Your task to perform on an android device: Show the shopping cart on newegg.com. Search for "razer nari" on newegg.com, select the first entry, and add it to the cart. Image 0: 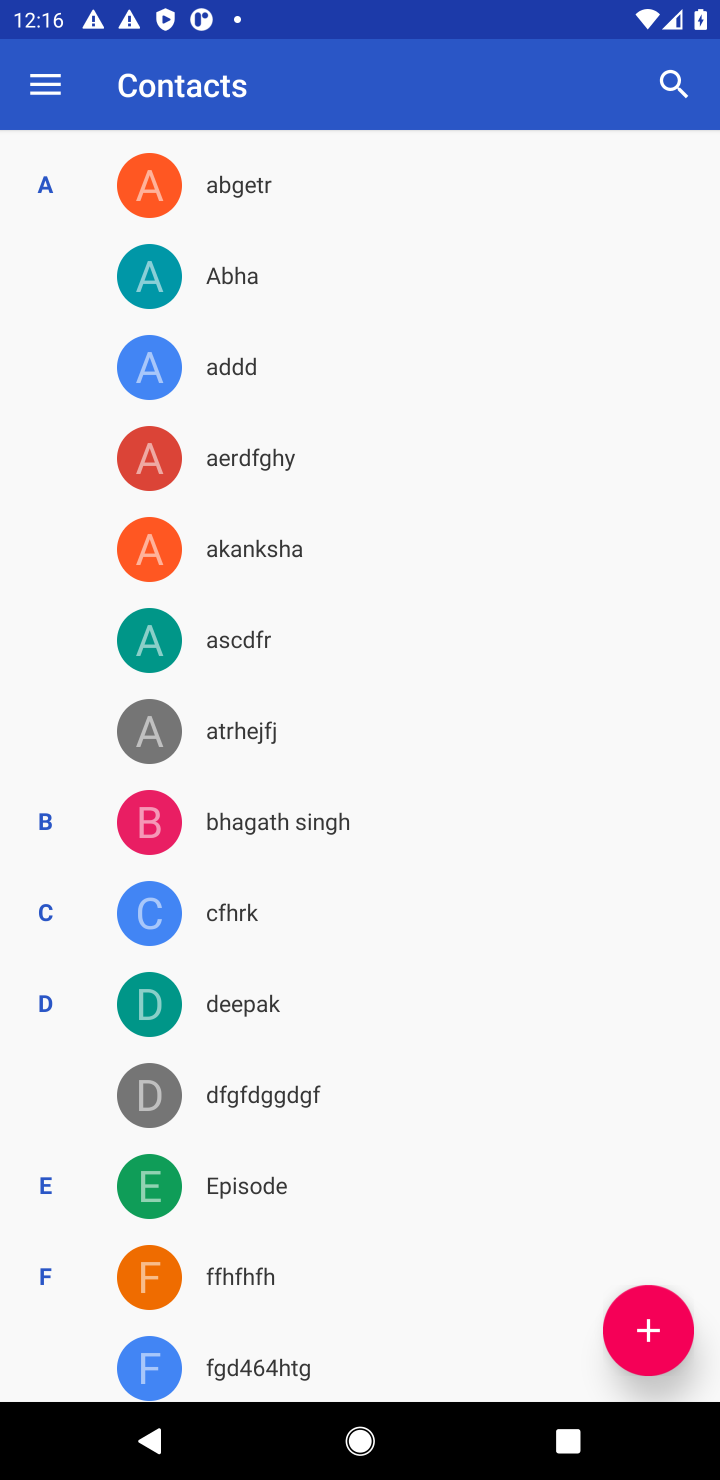
Step 0: press home button
Your task to perform on an android device: Show the shopping cart on newegg.com. Search for "razer nari" on newegg.com, select the first entry, and add it to the cart. Image 1: 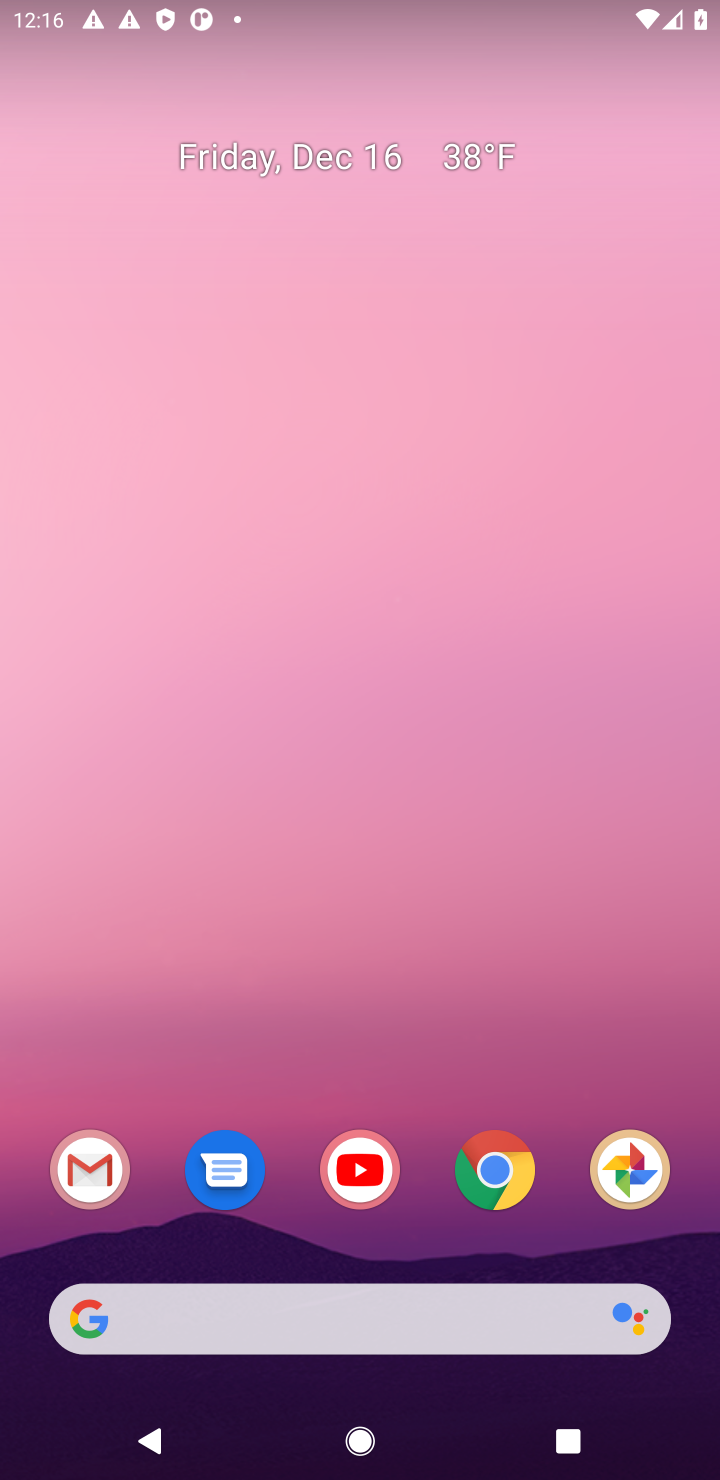
Step 1: click (500, 1188)
Your task to perform on an android device: Show the shopping cart on newegg.com. Search for "razer nari" on newegg.com, select the first entry, and add it to the cart. Image 2: 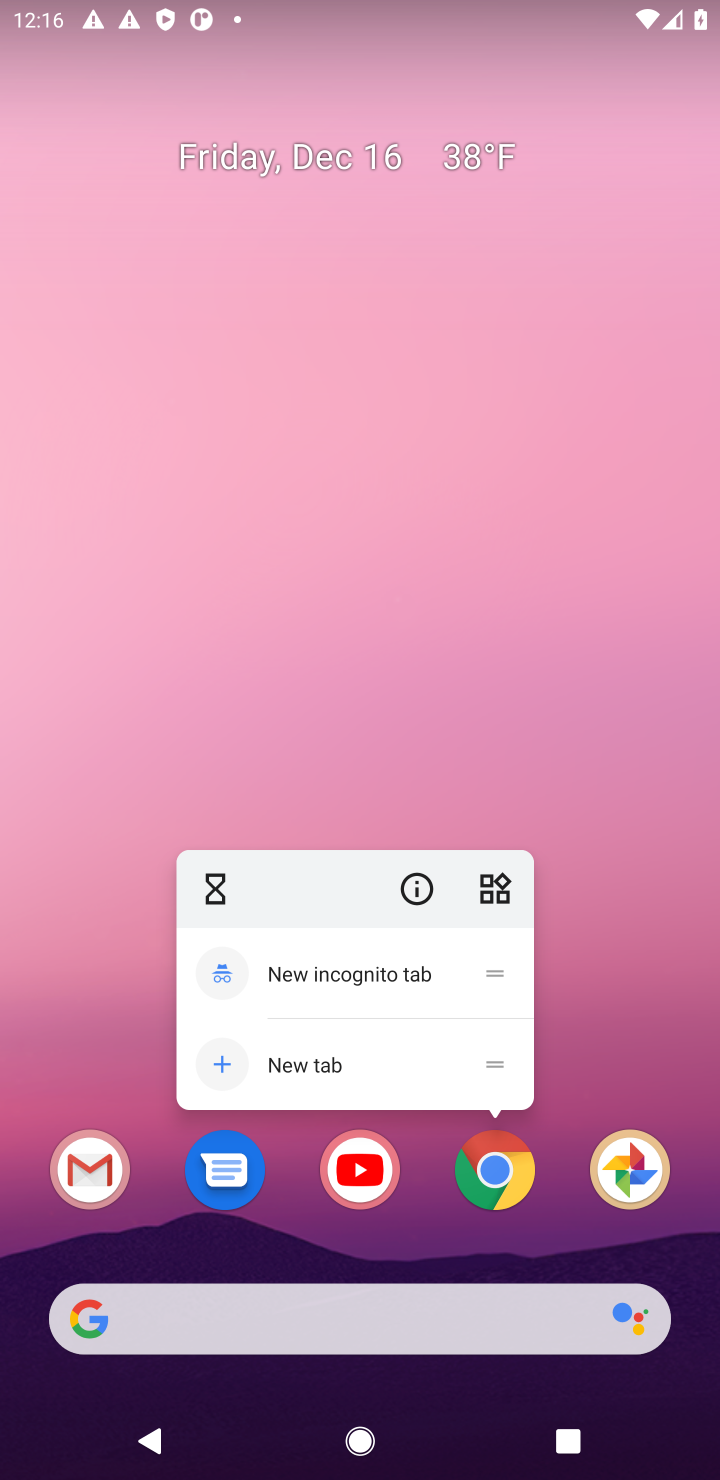
Step 2: click (495, 1175)
Your task to perform on an android device: Show the shopping cart on newegg.com. Search for "razer nari" on newegg.com, select the first entry, and add it to the cart. Image 3: 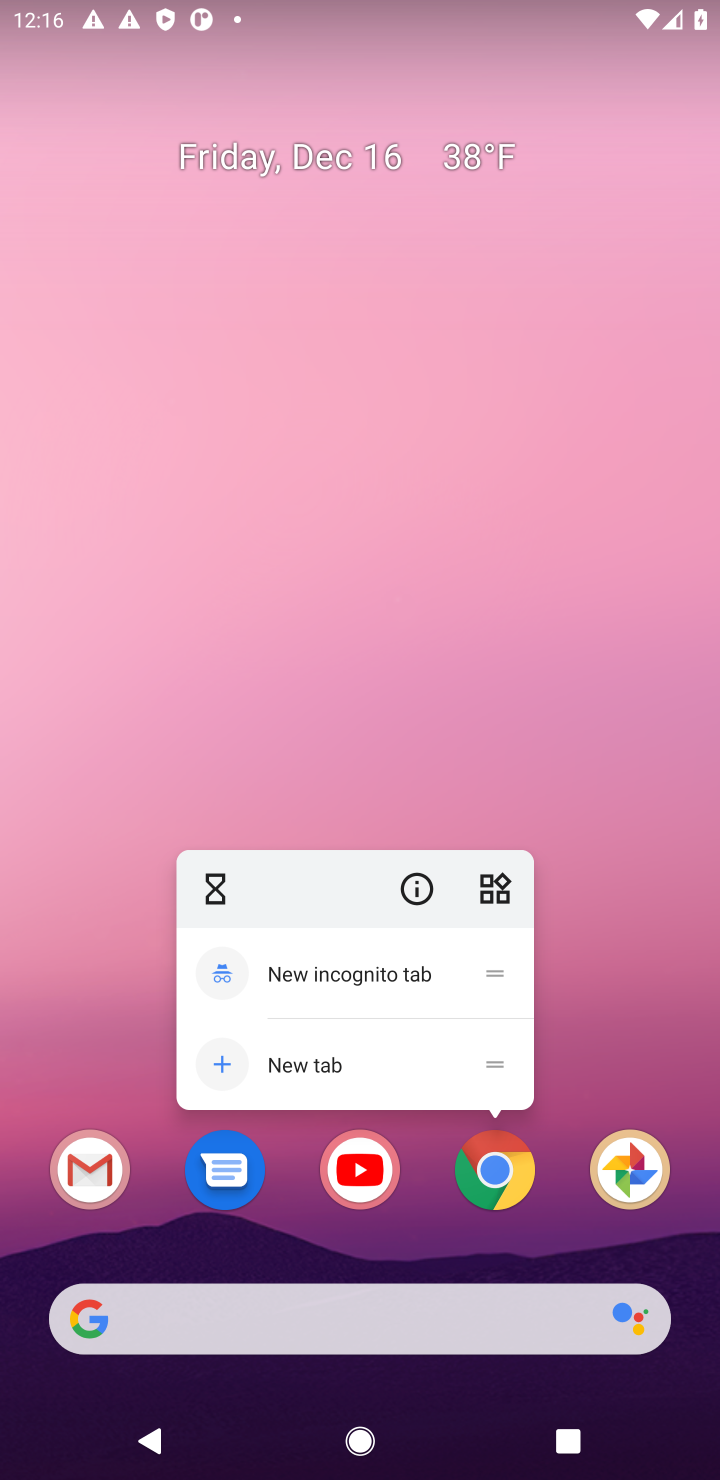
Step 3: click (495, 1175)
Your task to perform on an android device: Show the shopping cart on newegg.com. Search for "razer nari" on newegg.com, select the first entry, and add it to the cart. Image 4: 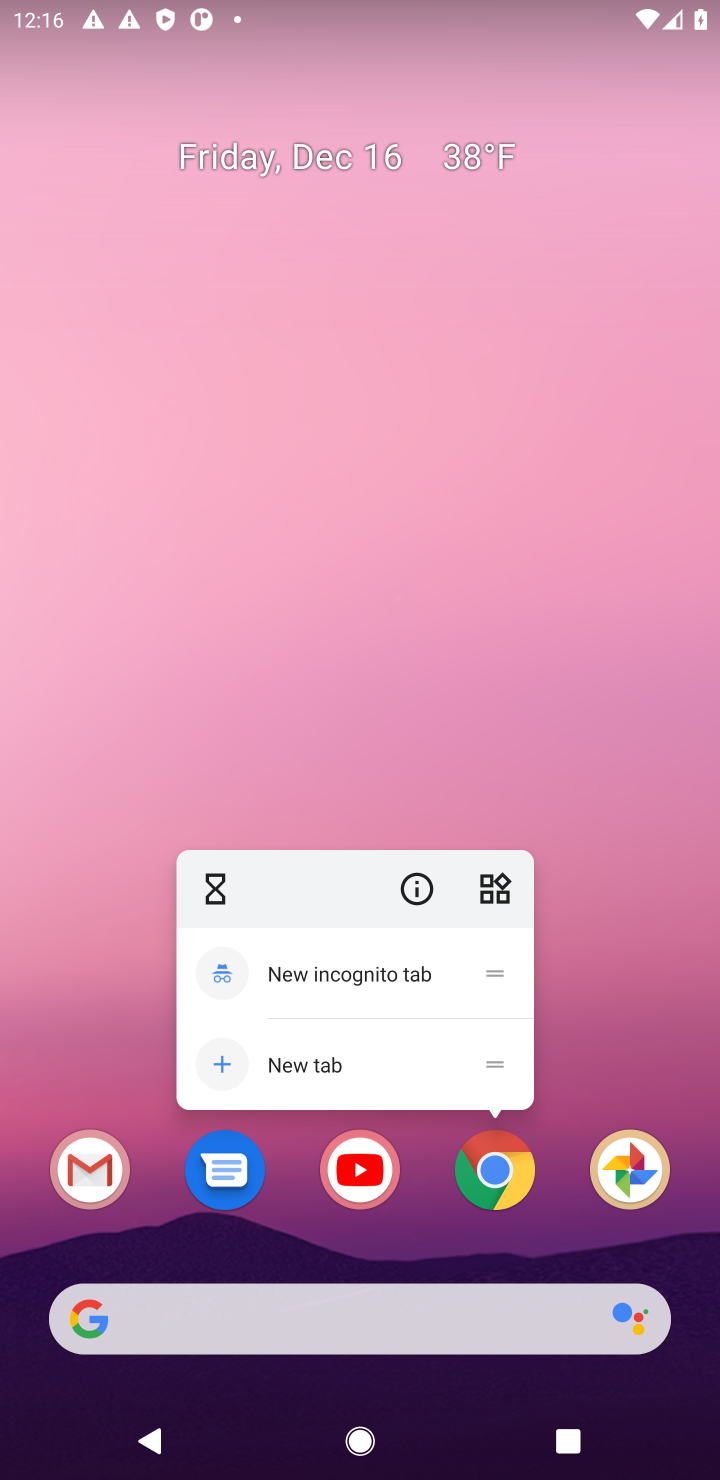
Step 4: click (510, 1169)
Your task to perform on an android device: Show the shopping cart on newegg.com. Search for "razer nari" on newegg.com, select the first entry, and add it to the cart. Image 5: 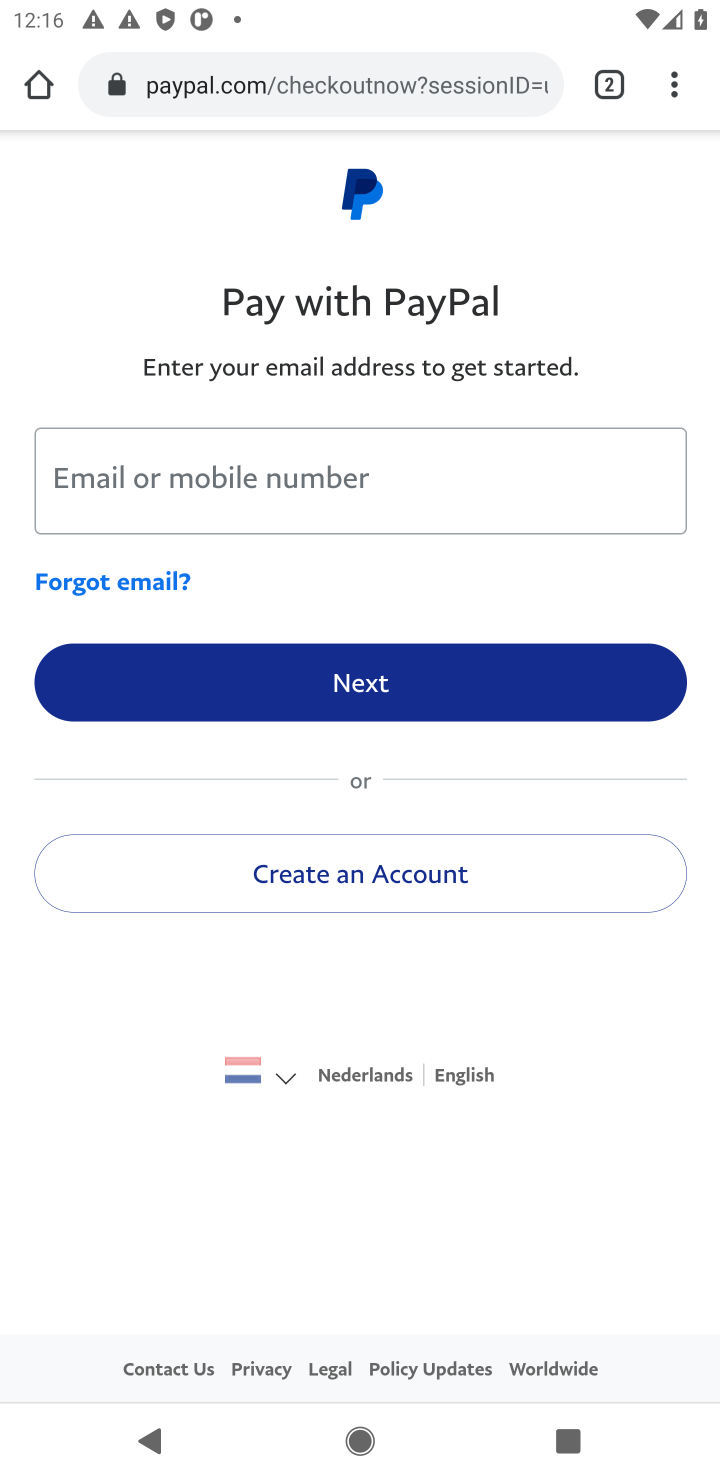
Step 5: press home button
Your task to perform on an android device: Show the shopping cart on newegg.com. Search for "razer nari" on newegg.com, select the first entry, and add it to the cart. Image 6: 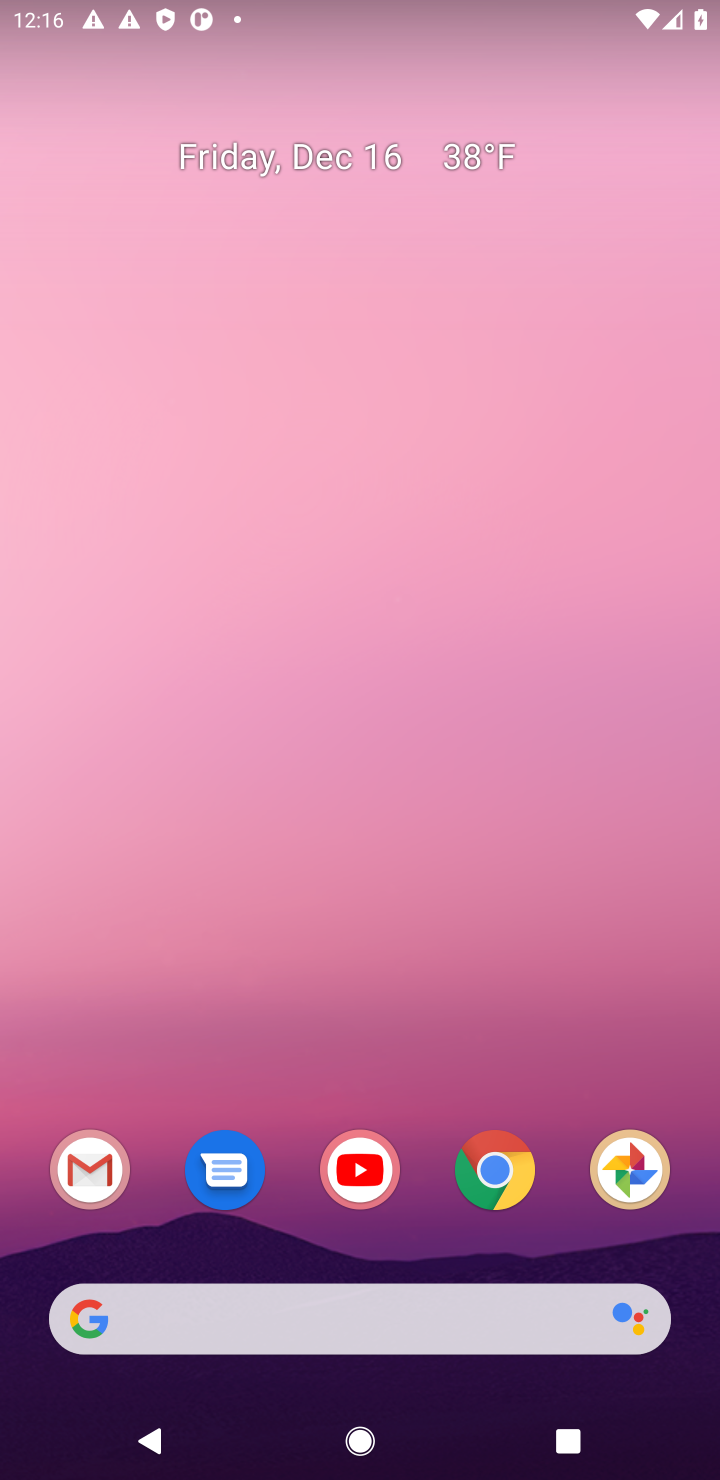
Step 6: click (482, 1165)
Your task to perform on an android device: Show the shopping cart on newegg.com. Search for "razer nari" on newegg.com, select the first entry, and add it to the cart. Image 7: 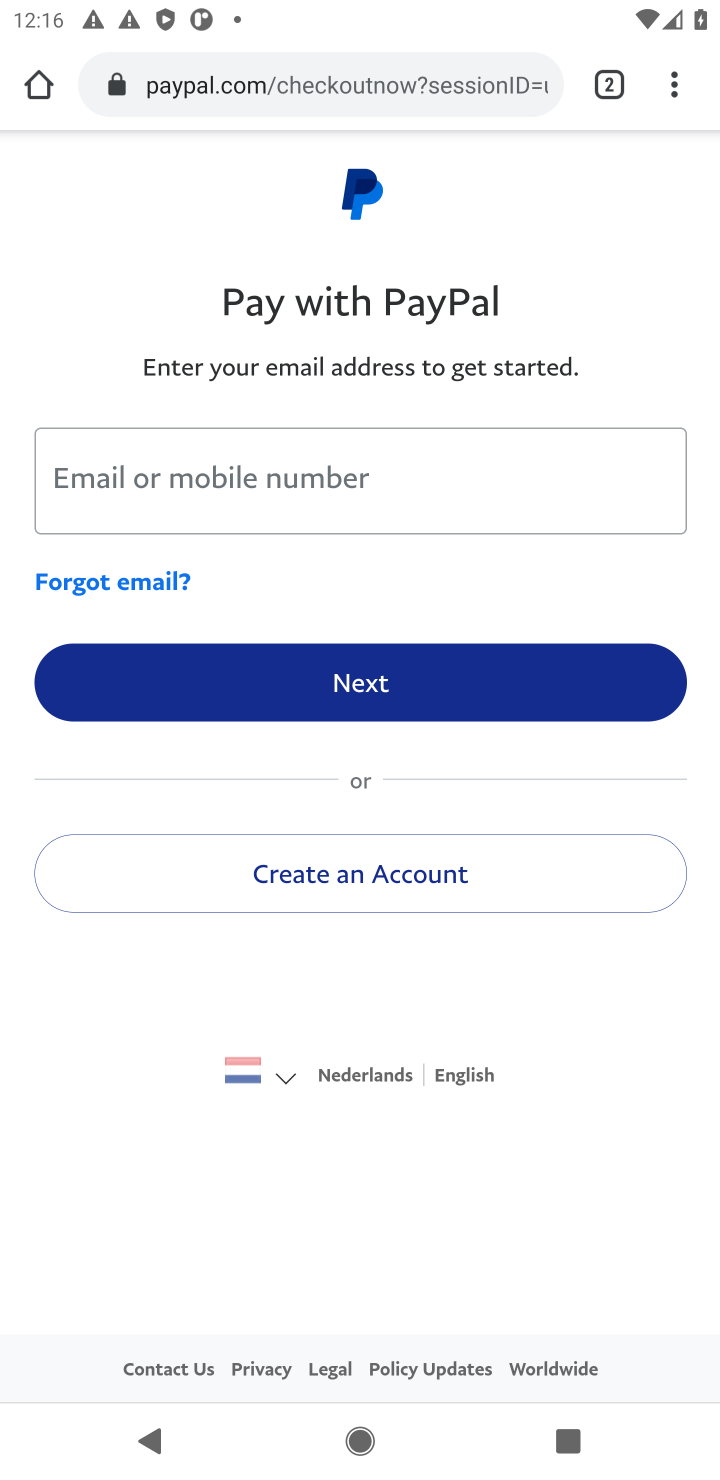
Step 7: click (253, 86)
Your task to perform on an android device: Show the shopping cart on newegg.com. Search for "razer nari" on newegg.com, select the first entry, and add it to the cart. Image 8: 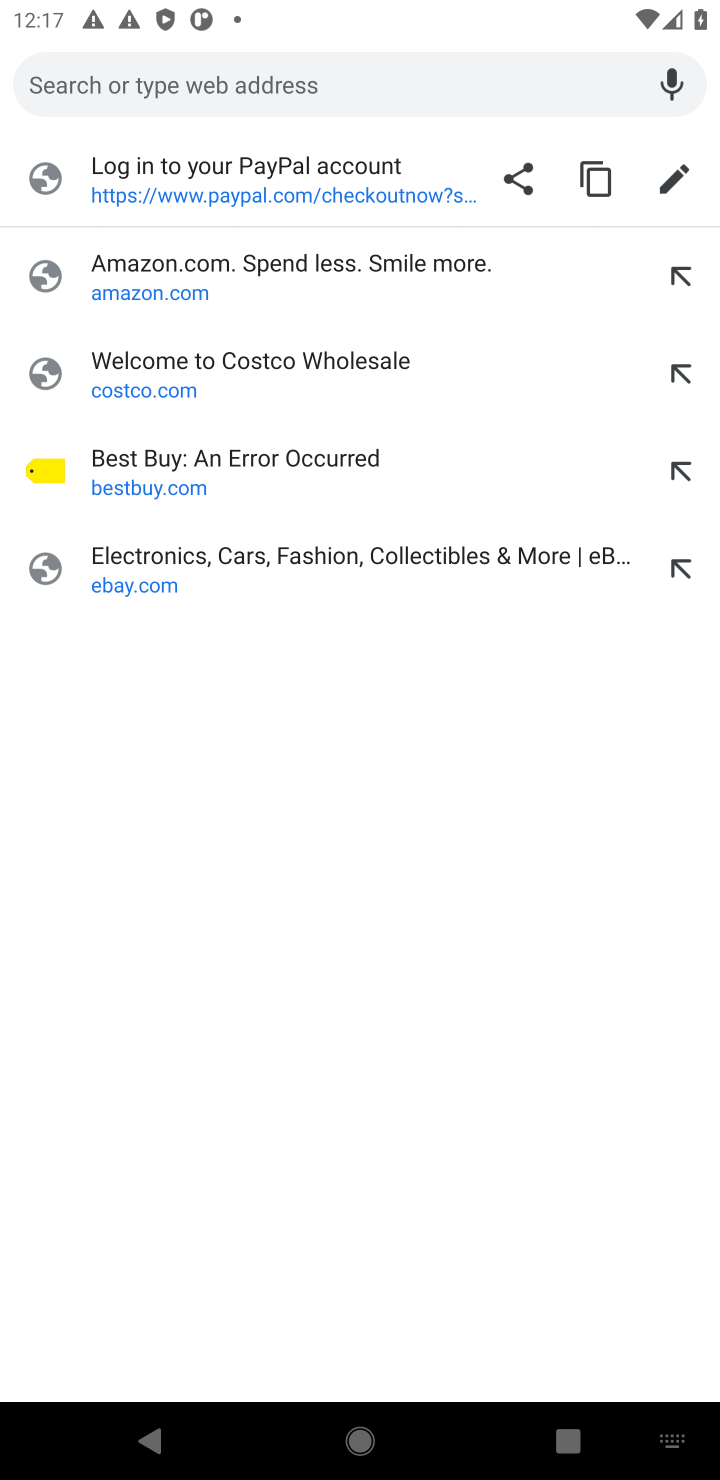
Step 8: type "newegg.com"
Your task to perform on an android device: Show the shopping cart on newegg.com. Search for "razer nari" on newegg.com, select the first entry, and add it to the cart. Image 9: 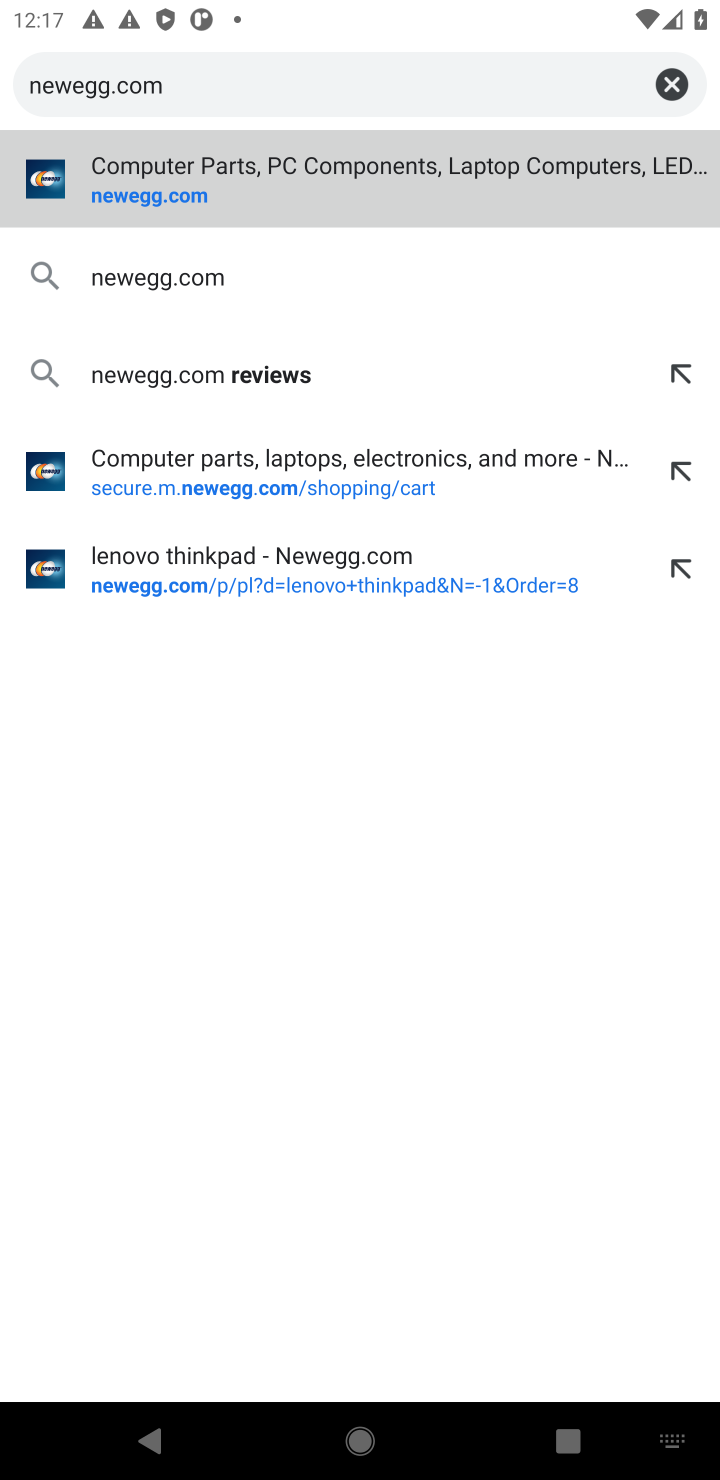
Step 9: click (142, 193)
Your task to perform on an android device: Show the shopping cart on newegg.com. Search for "razer nari" on newegg.com, select the first entry, and add it to the cart. Image 10: 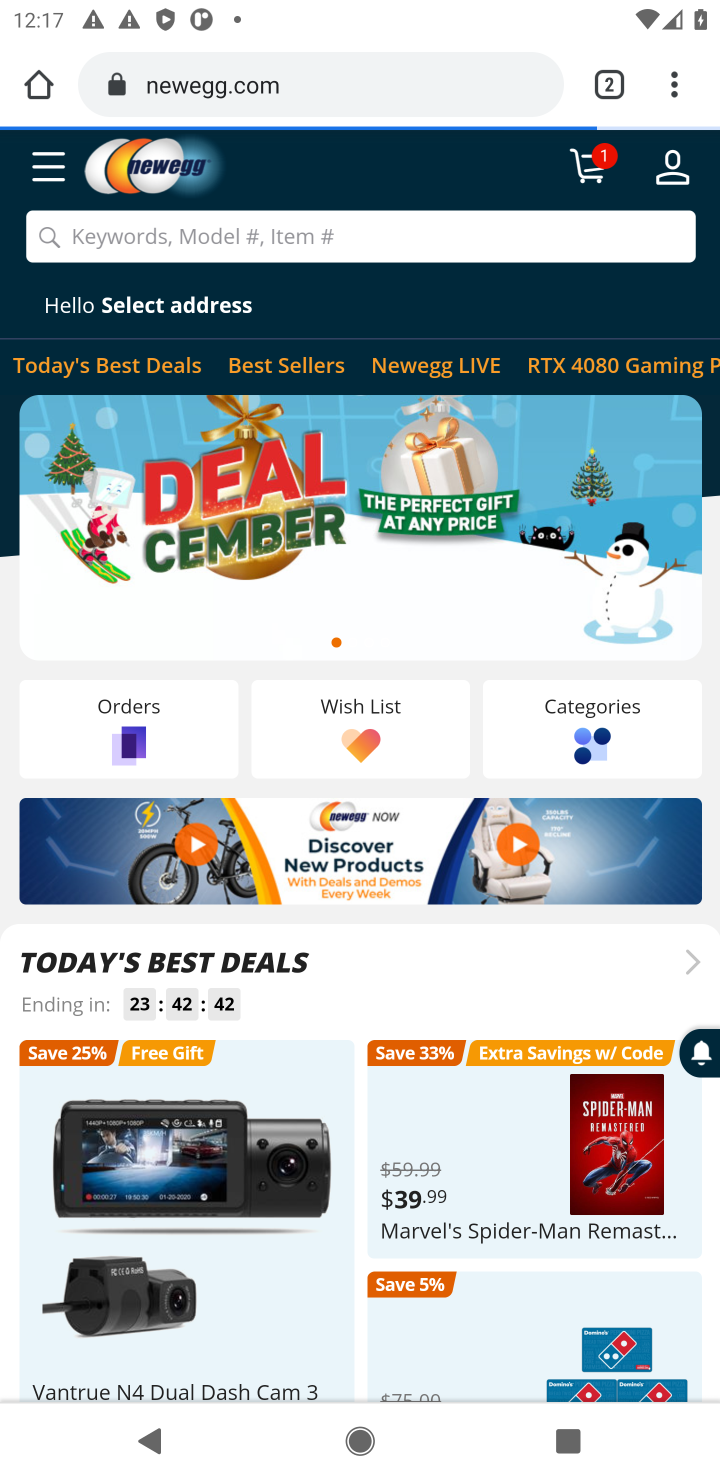
Step 10: click (595, 168)
Your task to perform on an android device: Show the shopping cart on newegg.com. Search for "razer nari" on newegg.com, select the first entry, and add it to the cart. Image 11: 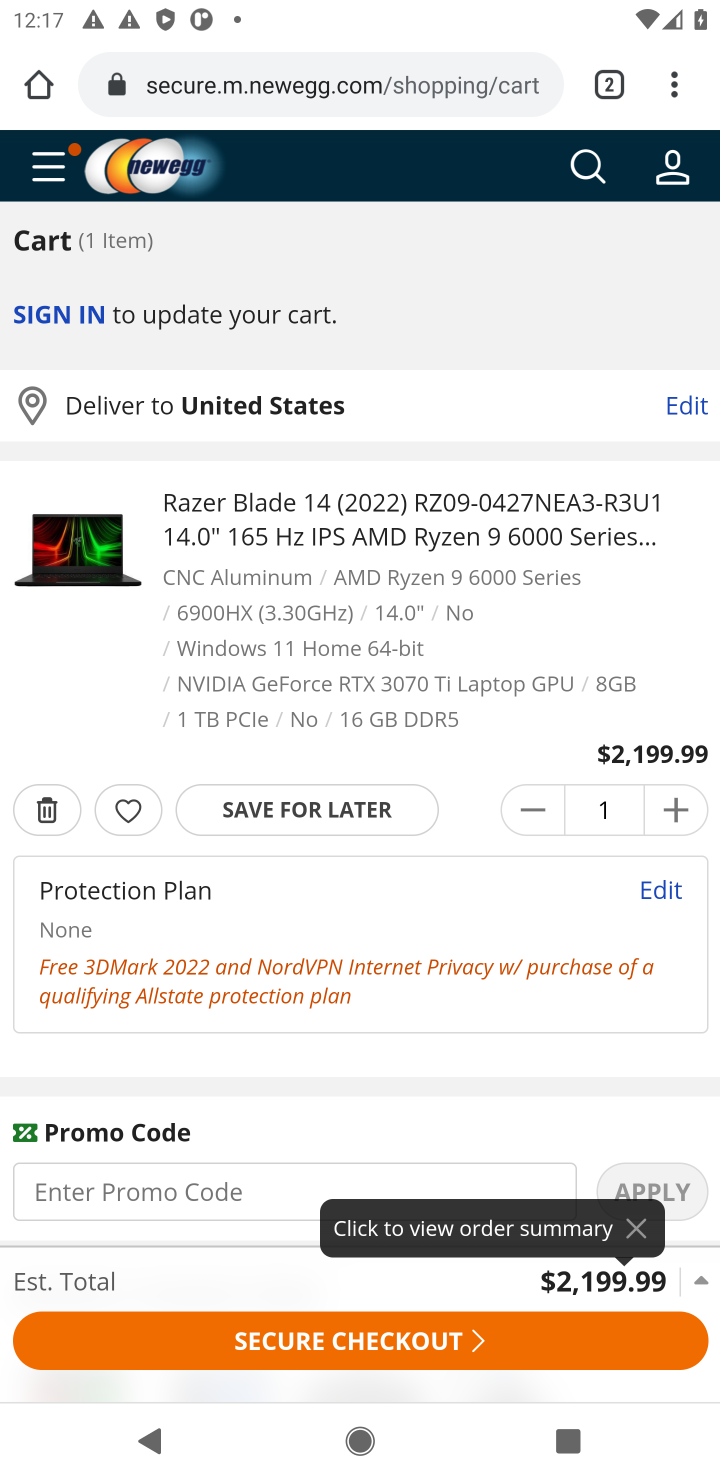
Step 11: click (560, 168)
Your task to perform on an android device: Show the shopping cart on newegg.com. Search for "razer nari" on newegg.com, select the first entry, and add it to the cart. Image 12: 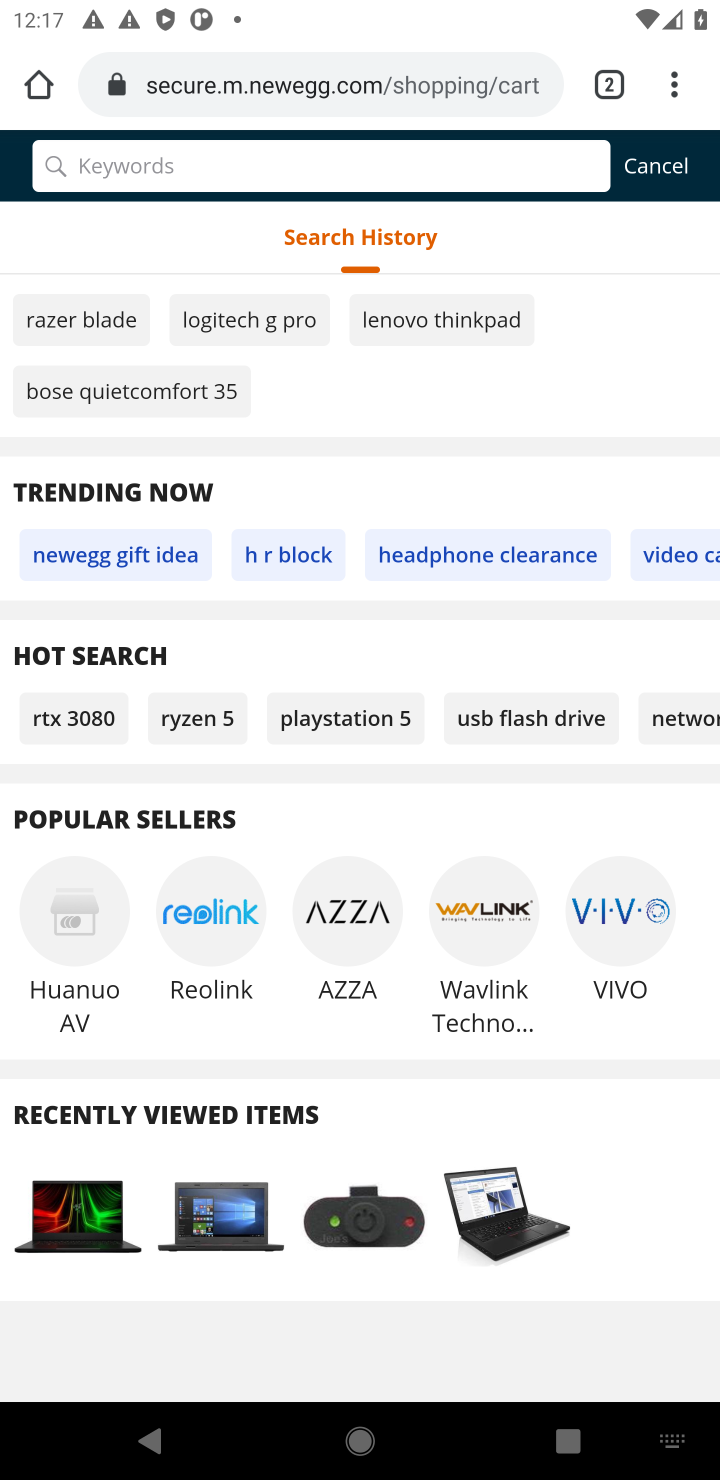
Step 12: click (580, 173)
Your task to perform on an android device: Show the shopping cart on newegg.com. Search for "razer nari" on newegg.com, select the first entry, and add it to the cart. Image 13: 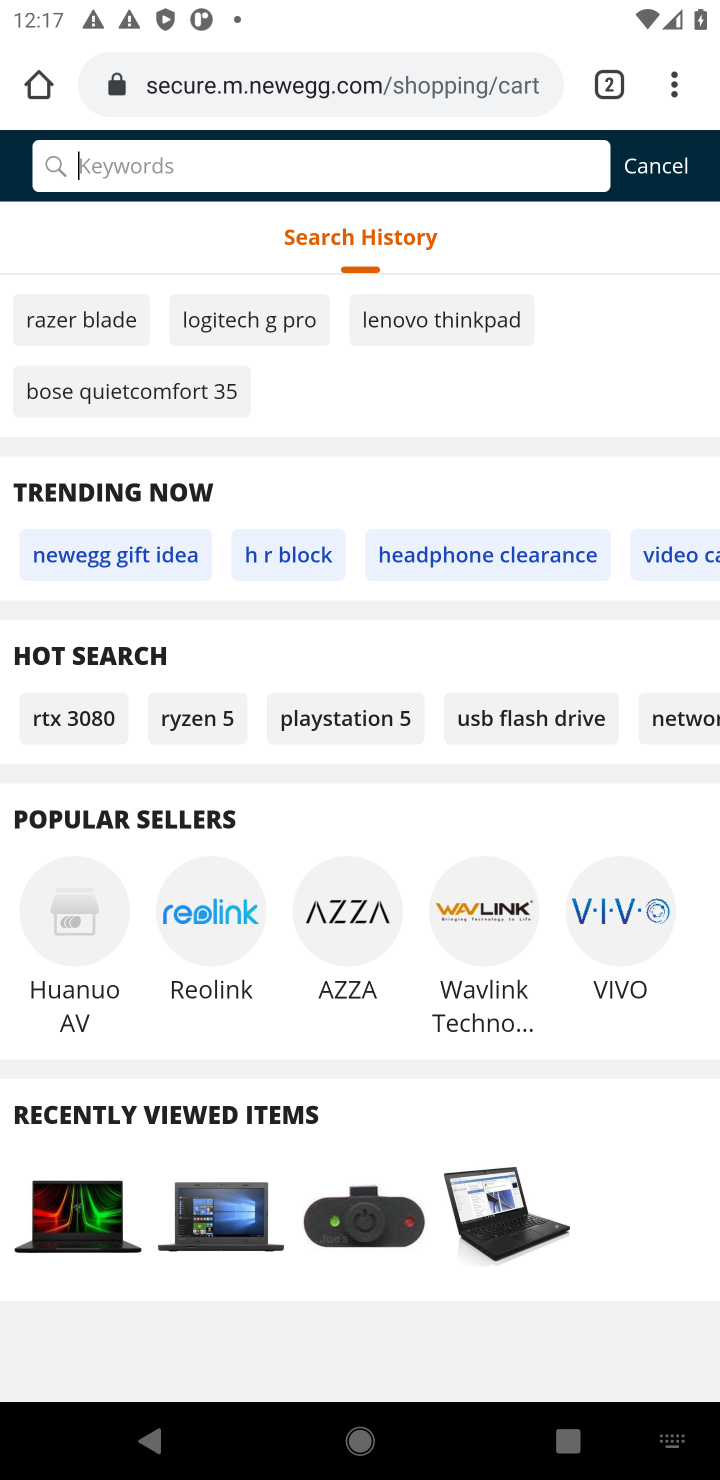
Step 13: type "razer nari"
Your task to perform on an android device: Show the shopping cart on newegg.com. Search for "razer nari" on newegg.com, select the first entry, and add it to the cart. Image 14: 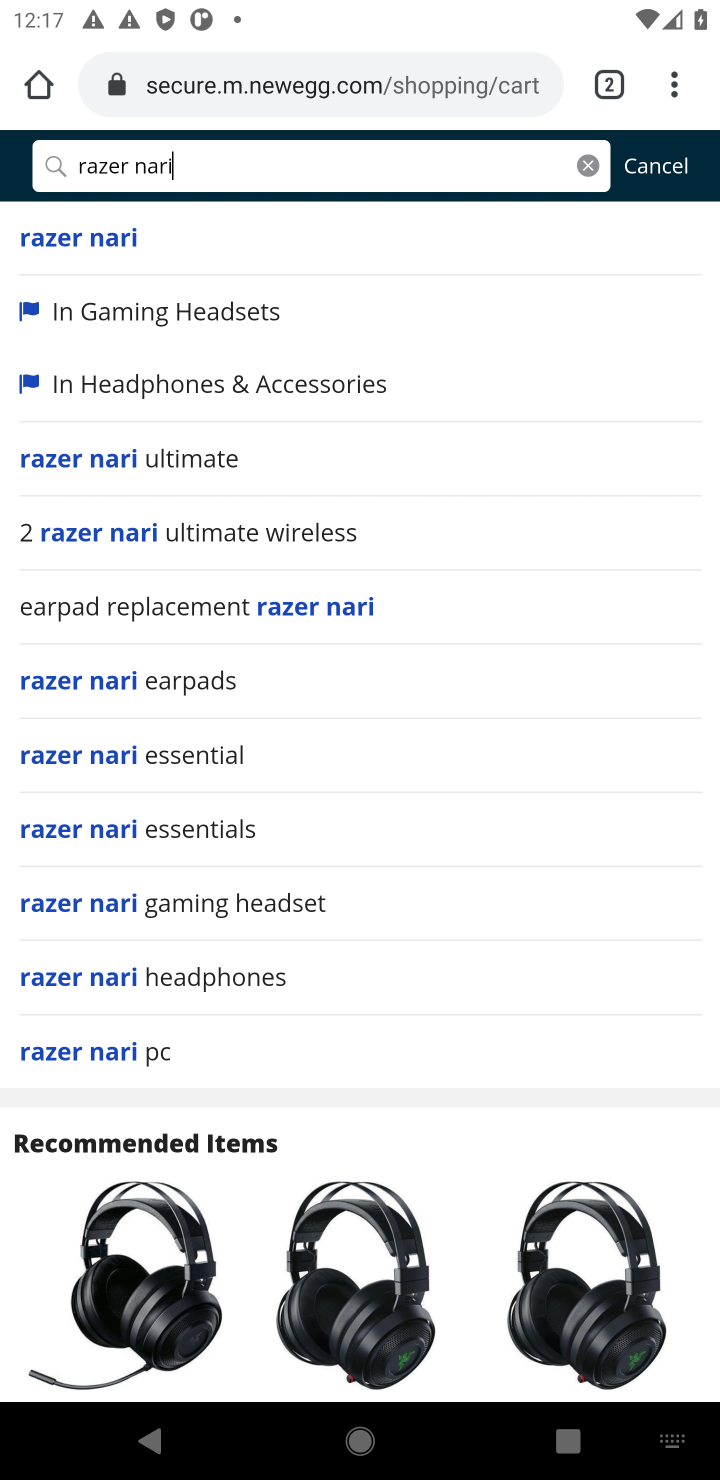
Step 14: click (129, 247)
Your task to perform on an android device: Show the shopping cart on newegg.com. Search for "razer nari" on newegg.com, select the first entry, and add it to the cart. Image 15: 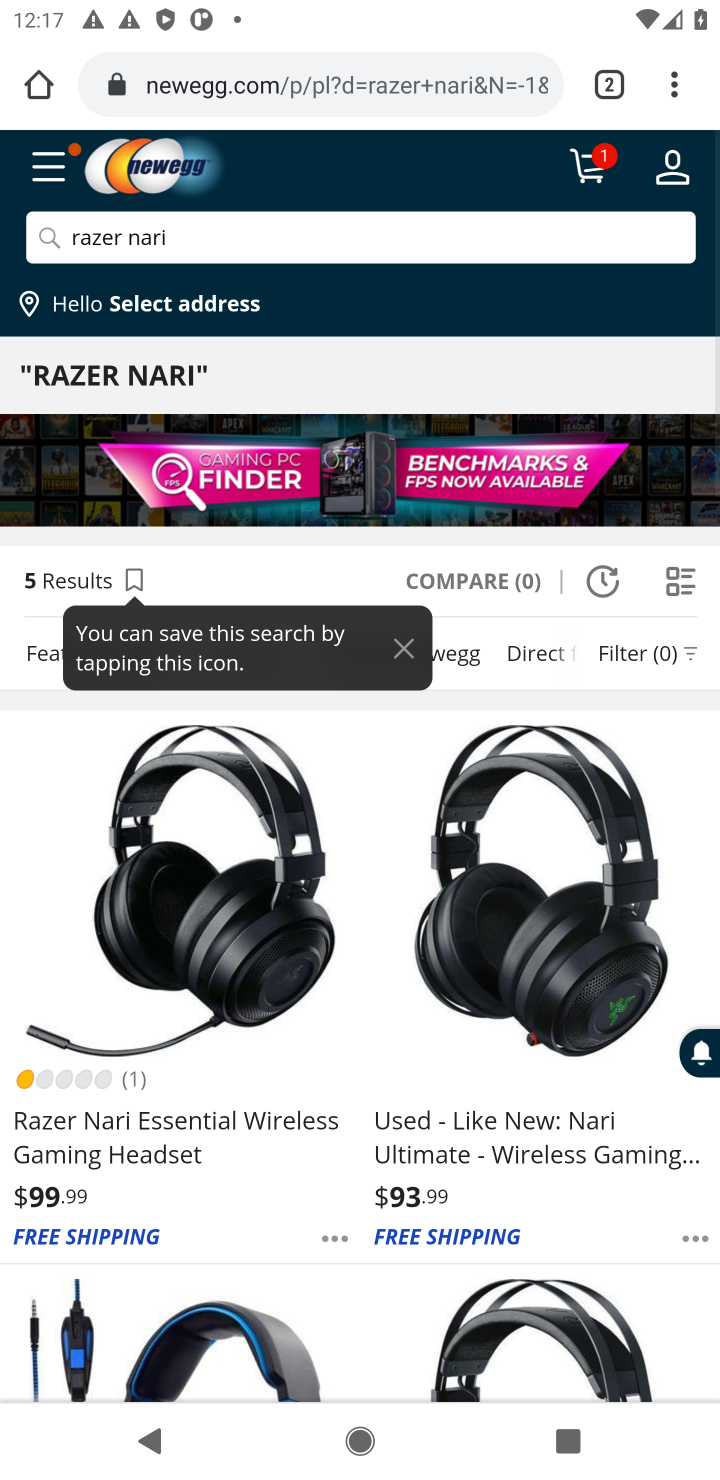
Step 15: click (125, 1151)
Your task to perform on an android device: Show the shopping cart on newegg.com. Search for "razer nari" on newegg.com, select the first entry, and add it to the cart. Image 16: 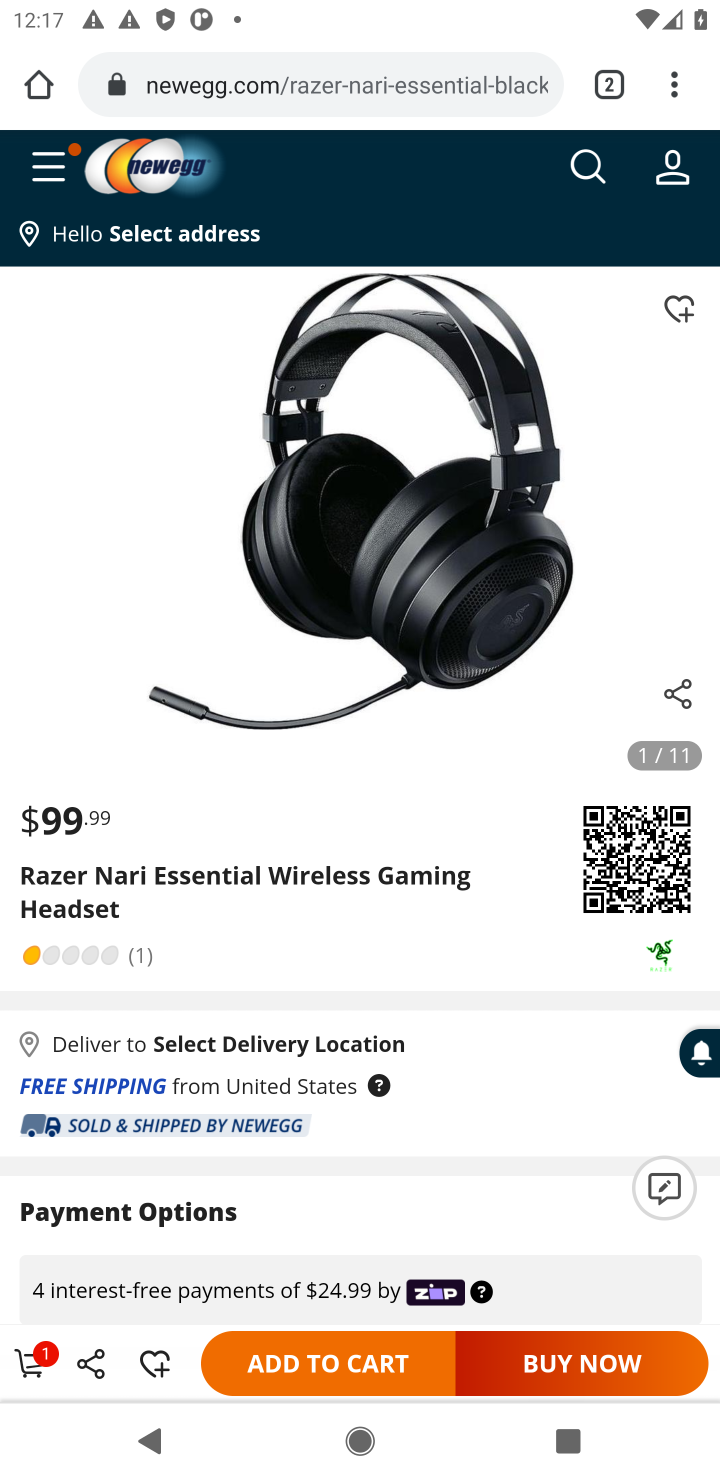
Step 16: click (335, 1368)
Your task to perform on an android device: Show the shopping cart on newegg.com. Search for "razer nari" on newegg.com, select the first entry, and add it to the cart. Image 17: 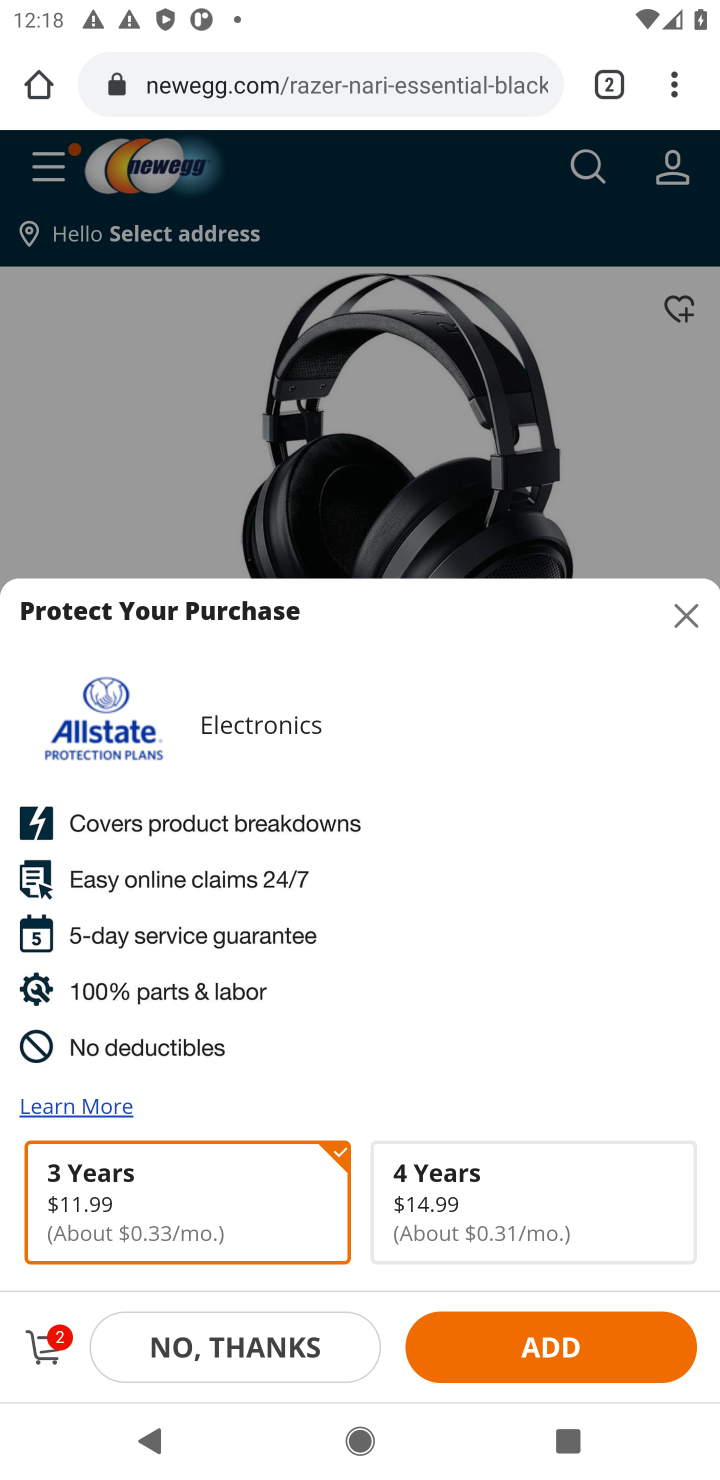
Step 17: task complete